Your task to perform on an android device: check google app version Image 0: 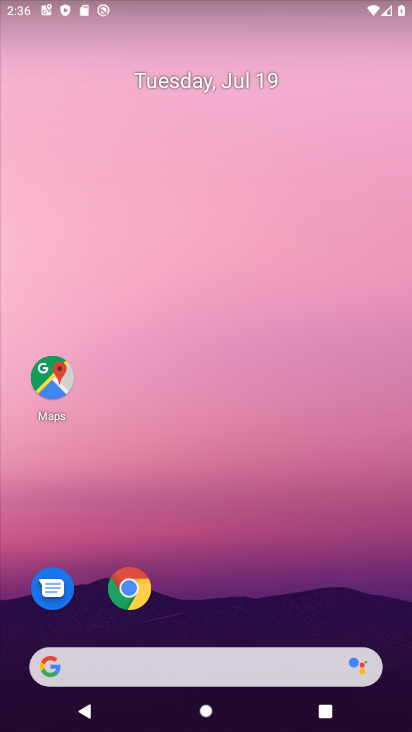
Step 0: click (49, 668)
Your task to perform on an android device: check google app version Image 1: 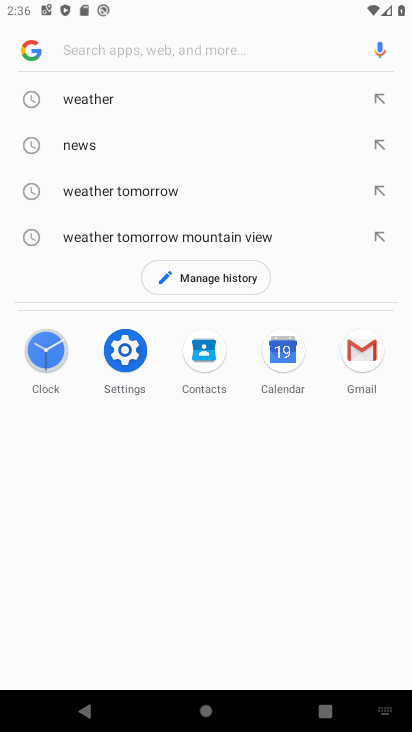
Step 1: click (25, 52)
Your task to perform on an android device: check google app version Image 2: 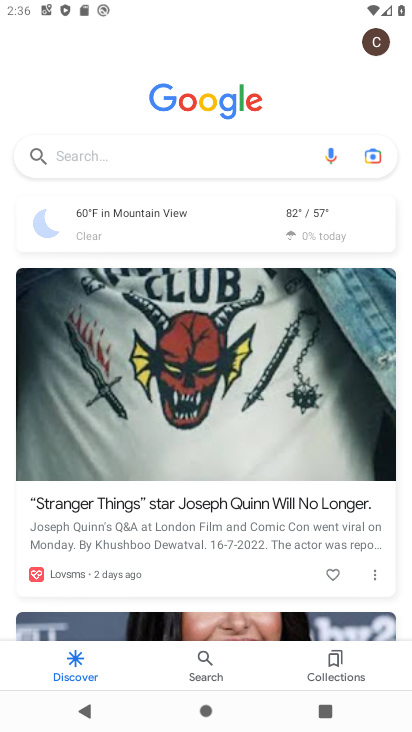
Step 2: click (377, 44)
Your task to perform on an android device: check google app version Image 3: 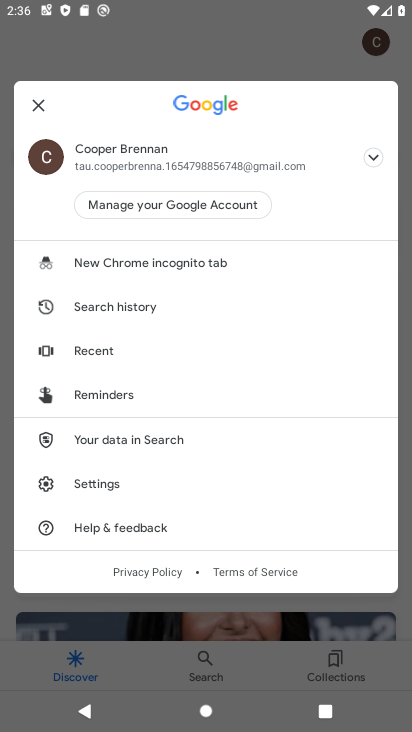
Step 3: click (112, 480)
Your task to perform on an android device: check google app version Image 4: 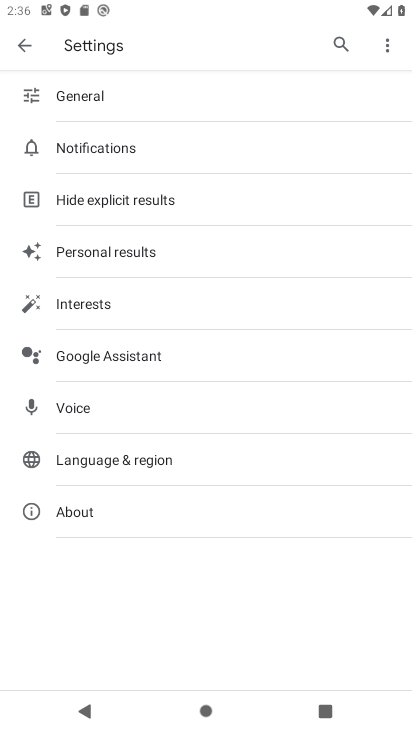
Step 4: click (59, 518)
Your task to perform on an android device: check google app version Image 5: 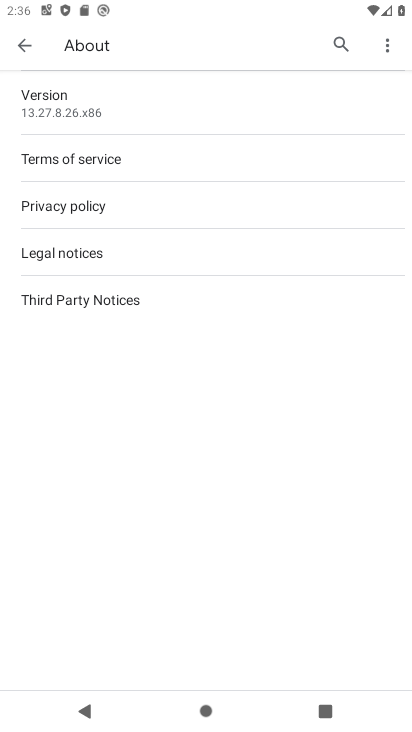
Step 5: task complete